Your task to perform on an android device: Open Google Chrome Image 0: 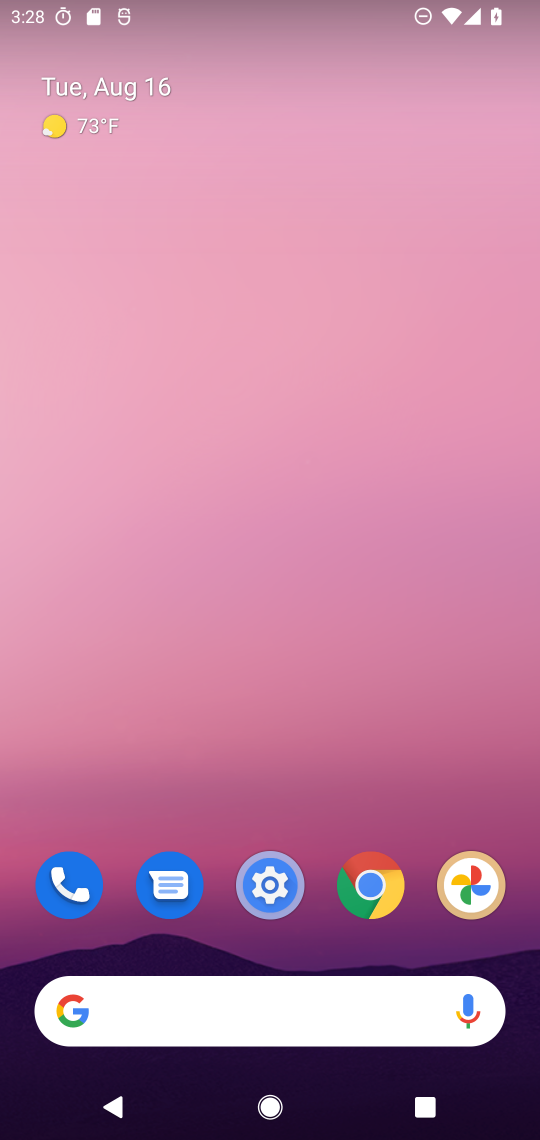
Step 0: drag from (208, 935) to (244, 258)
Your task to perform on an android device: Open Google Chrome Image 1: 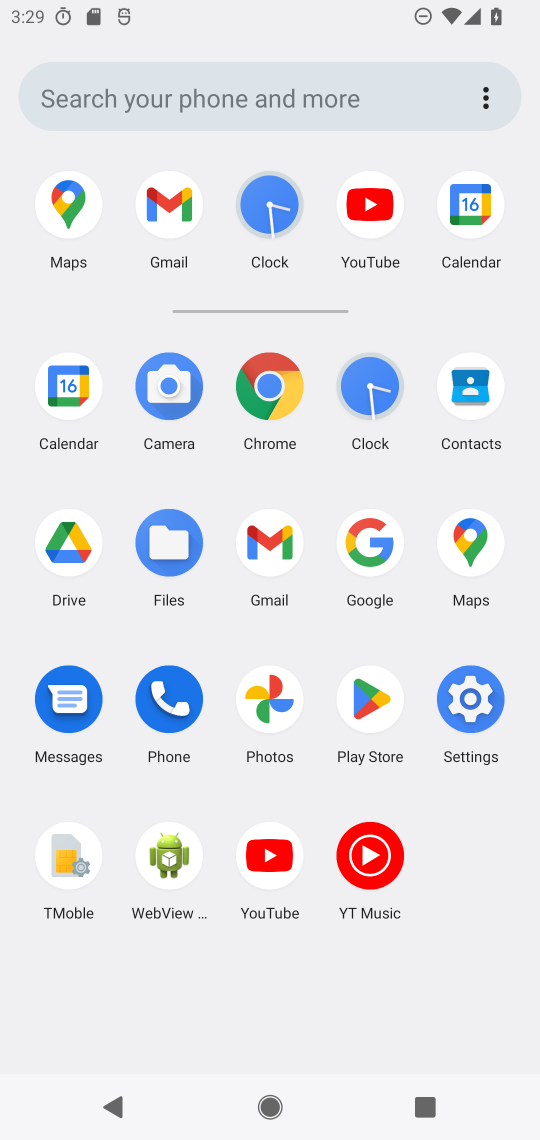
Step 1: click (358, 537)
Your task to perform on an android device: Open Google Chrome Image 2: 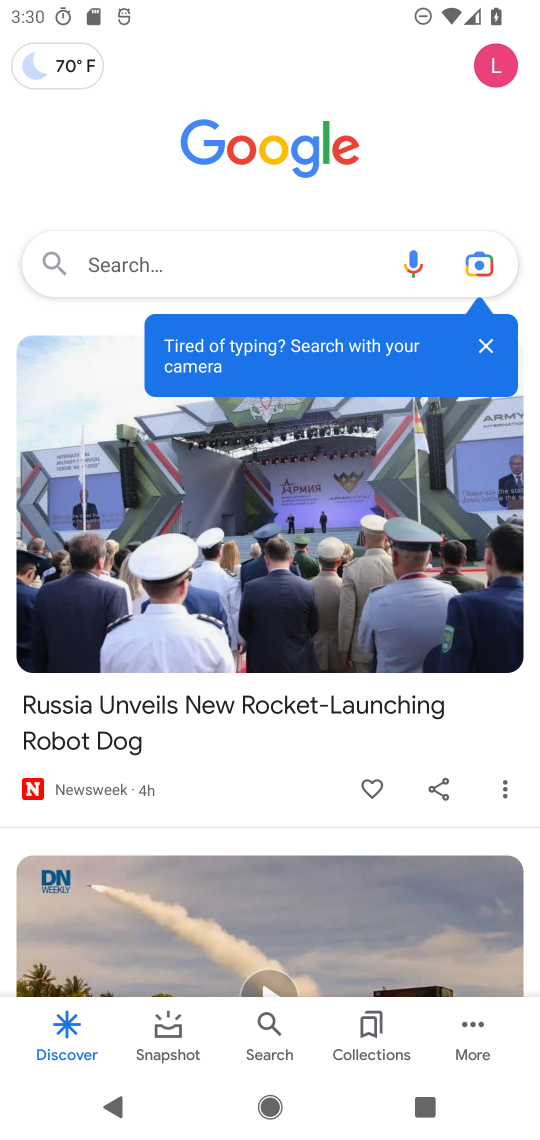
Step 2: task complete